Your task to perform on an android device: toggle notifications settings in the gmail app Image 0: 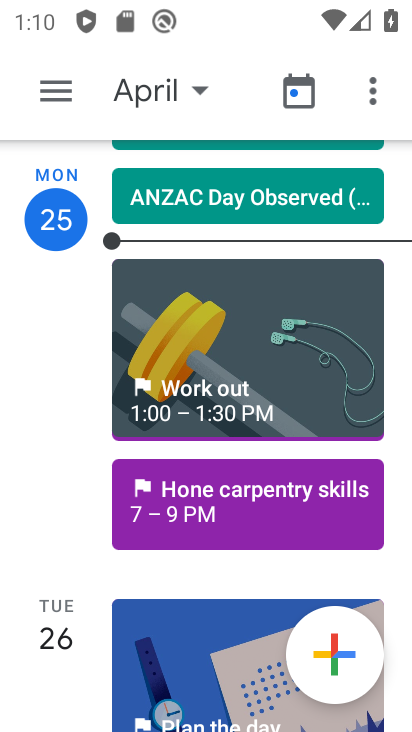
Step 0: press home button
Your task to perform on an android device: toggle notifications settings in the gmail app Image 1: 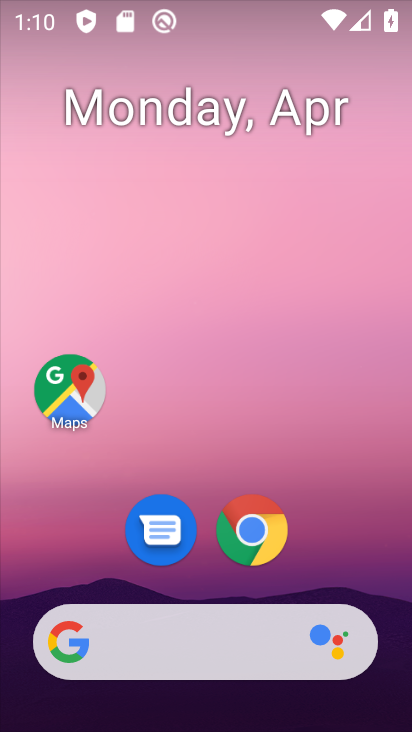
Step 1: drag from (330, 584) to (271, 103)
Your task to perform on an android device: toggle notifications settings in the gmail app Image 2: 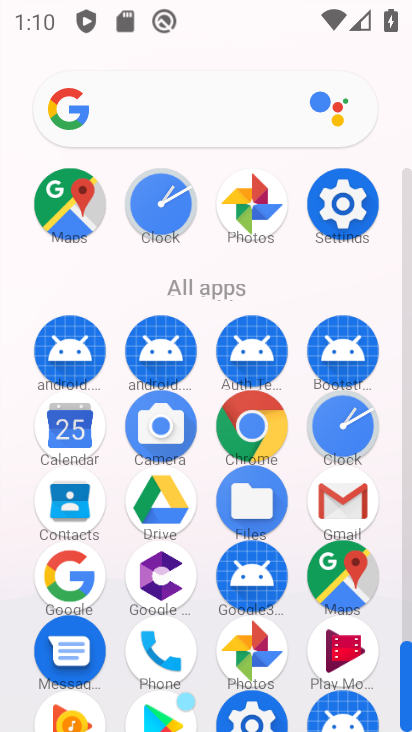
Step 2: click (336, 500)
Your task to perform on an android device: toggle notifications settings in the gmail app Image 3: 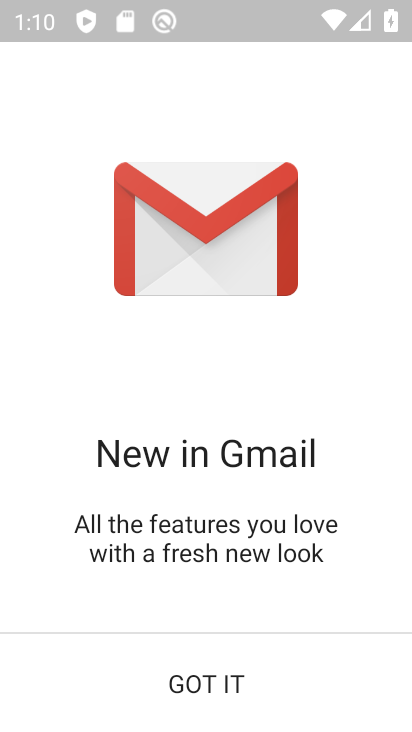
Step 3: click (214, 684)
Your task to perform on an android device: toggle notifications settings in the gmail app Image 4: 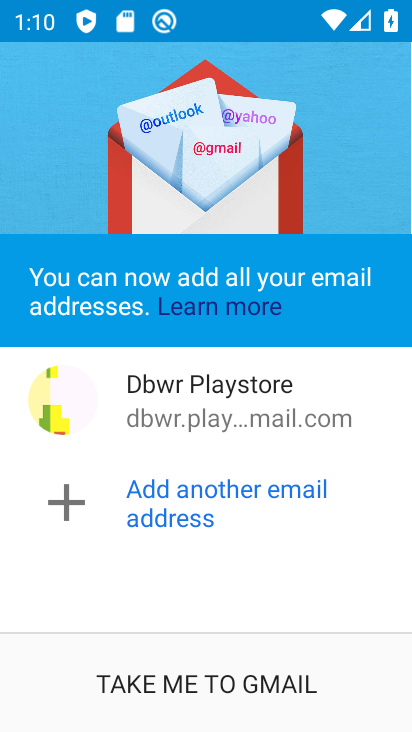
Step 4: click (214, 684)
Your task to perform on an android device: toggle notifications settings in the gmail app Image 5: 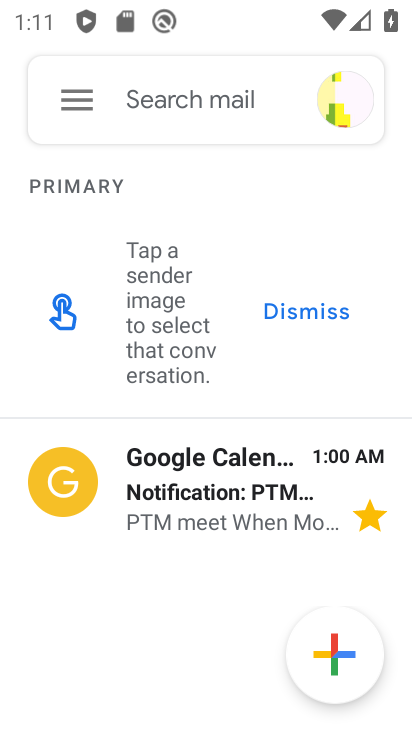
Step 5: click (78, 95)
Your task to perform on an android device: toggle notifications settings in the gmail app Image 6: 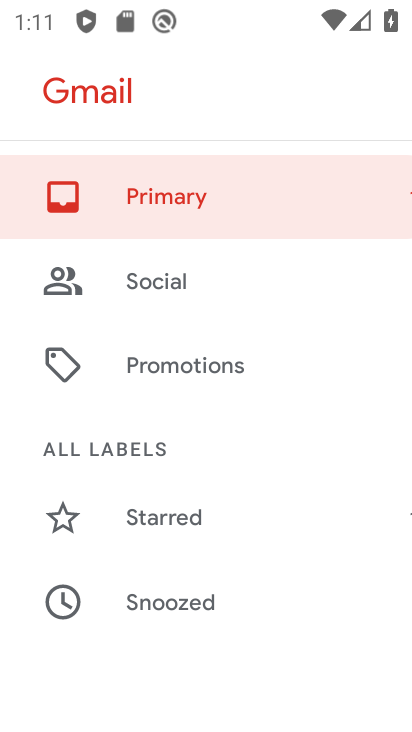
Step 6: drag from (182, 489) to (124, 91)
Your task to perform on an android device: toggle notifications settings in the gmail app Image 7: 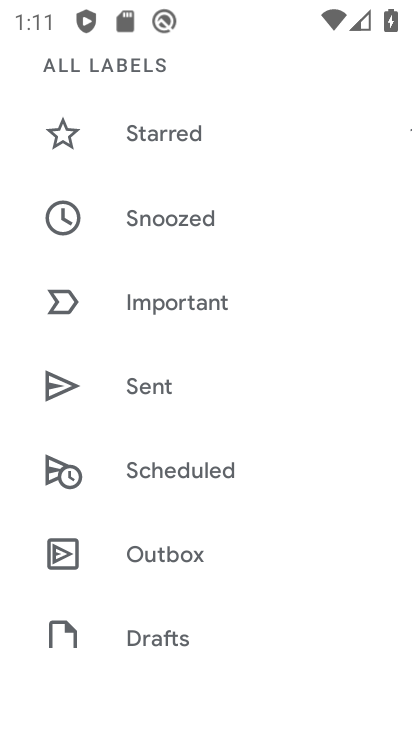
Step 7: drag from (231, 573) to (178, 202)
Your task to perform on an android device: toggle notifications settings in the gmail app Image 8: 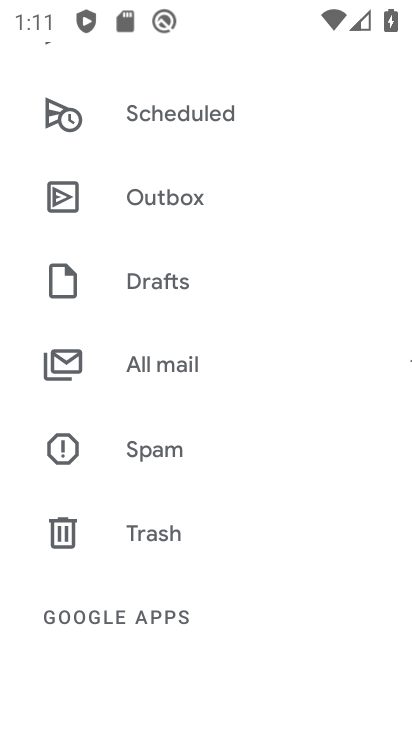
Step 8: drag from (263, 529) to (235, 92)
Your task to perform on an android device: toggle notifications settings in the gmail app Image 9: 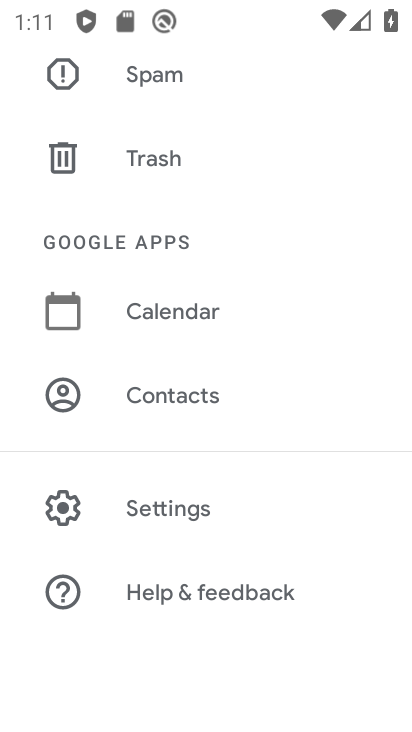
Step 9: drag from (231, 552) to (199, 160)
Your task to perform on an android device: toggle notifications settings in the gmail app Image 10: 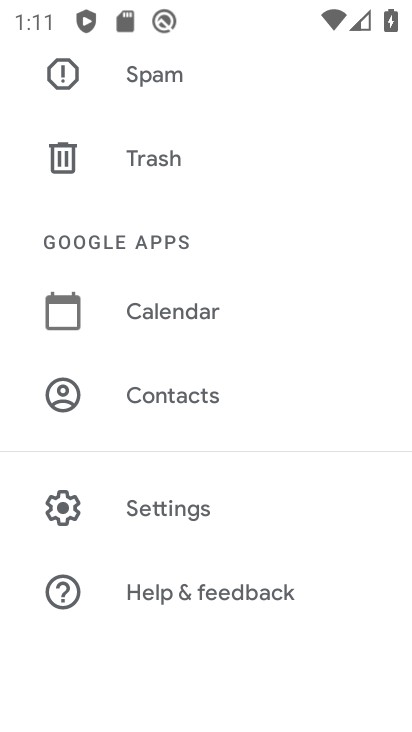
Step 10: click (171, 509)
Your task to perform on an android device: toggle notifications settings in the gmail app Image 11: 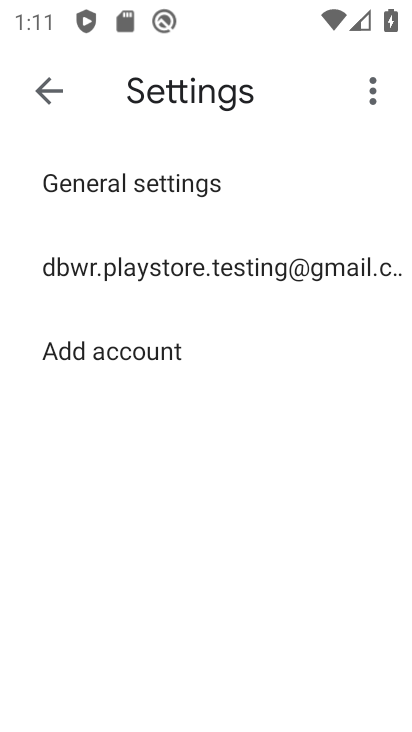
Step 11: click (128, 184)
Your task to perform on an android device: toggle notifications settings in the gmail app Image 12: 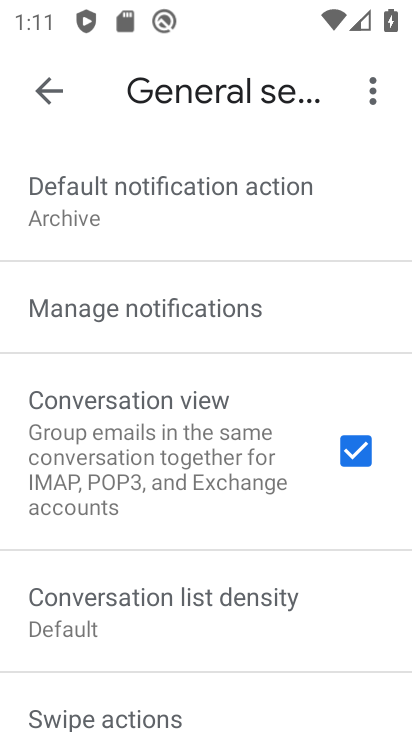
Step 12: click (172, 308)
Your task to perform on an android device: toggle notifications settings in the gmail app Image 13: 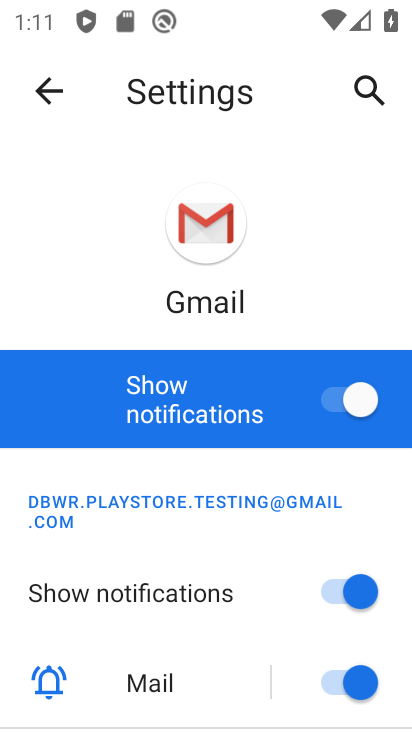
Step 13: click (348, 403)
Your task to perform on an android device: toggle notifications settings in the gmail app Image 14: 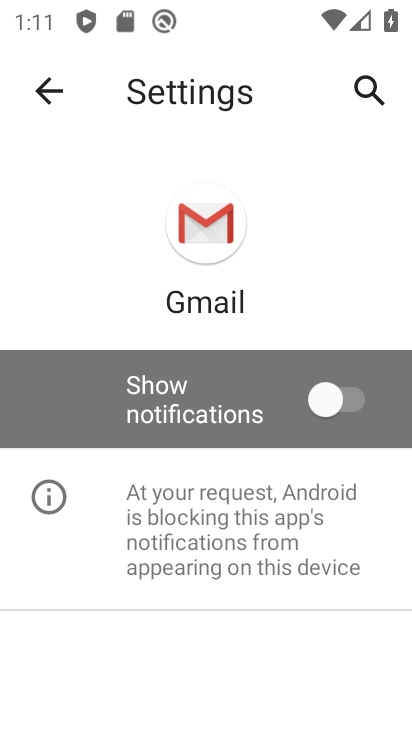
Step 14: task complete